Your task to perform on an android device: turn off notifications settings in the gmail app Image 0: 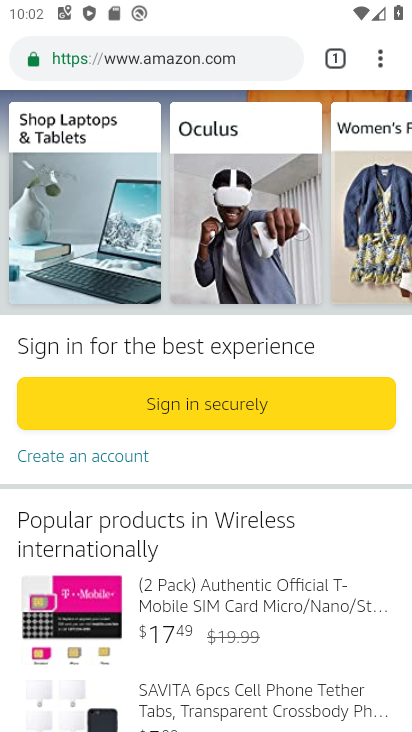
Step 0: press home button
Your task to perform on an android device: turn off notifications settings in the gmail app Image 1: 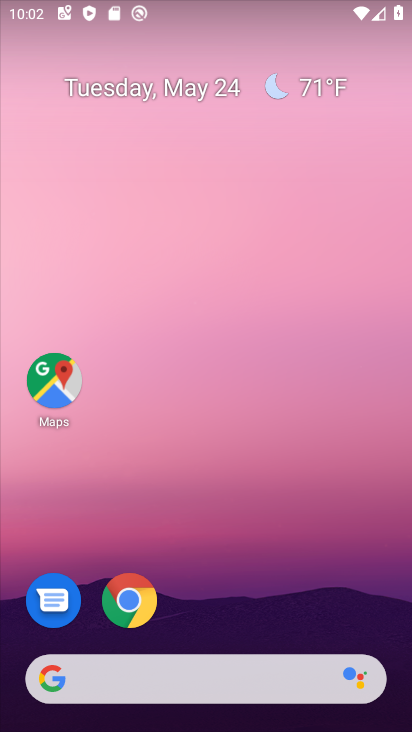
Step 1: drag from (178, 470) to (173, 12)
Your task to perform on an android device: turn off notifications settings in the gmail app Image 2: 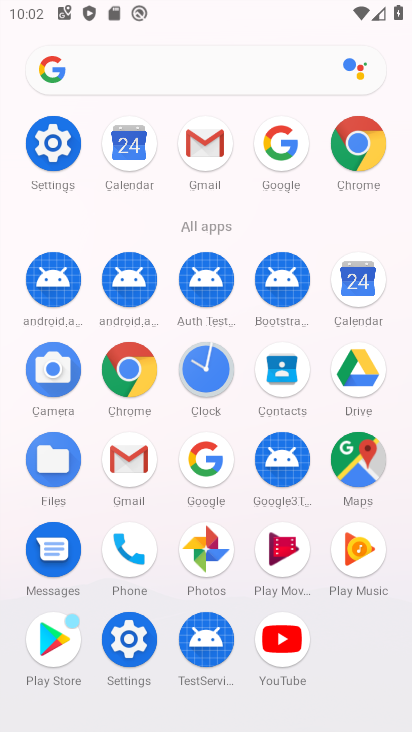
Step 2: click (124, 474)
Your task to perform on an android device: turn off notifications settings in the gmail app Image 3: 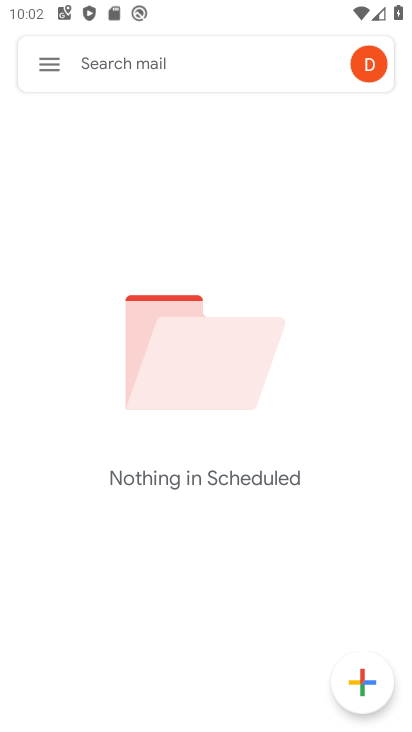
Step 3: click (51, 72)
Your task to perform on an android device: turn off notifications settings in the gmail app Image 4: 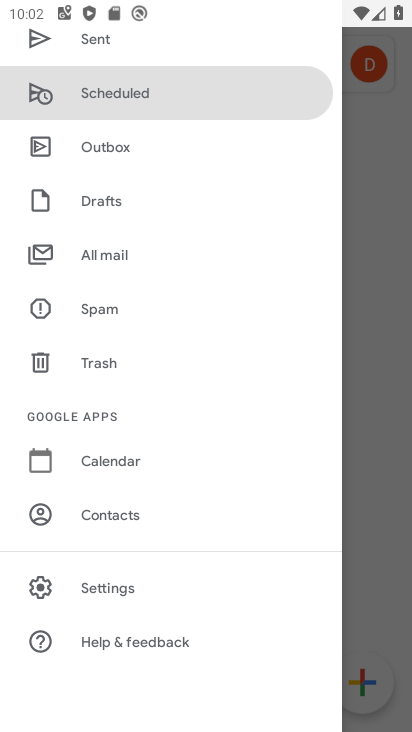
Step 4: click (107, 582)
Your task to perform on an android device: turn off notifications settings in the gmail app Image 5: 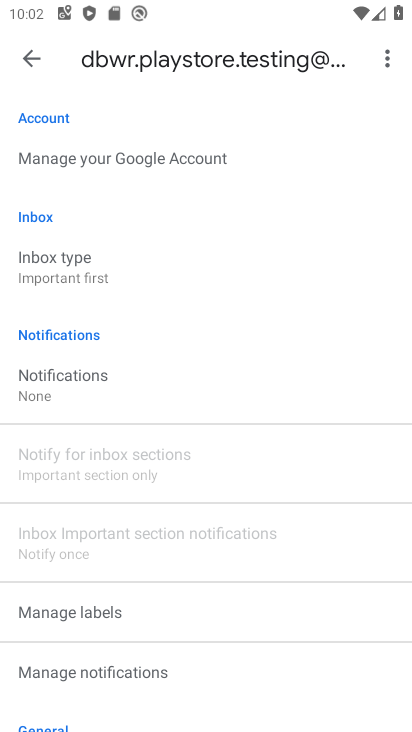
Step 5: click (86, 400)
Your task to perform on an android device: turn off notifications settings in the gmail app Image 6: 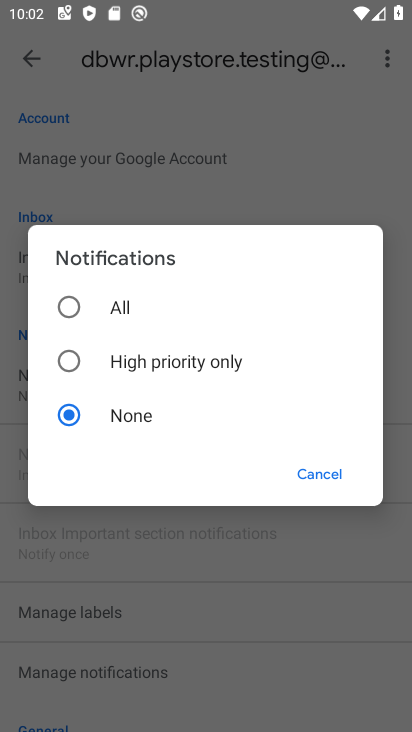
Step 6: task complete